Your task to perform on an android device: install app "Google Find My Device" Image 0: 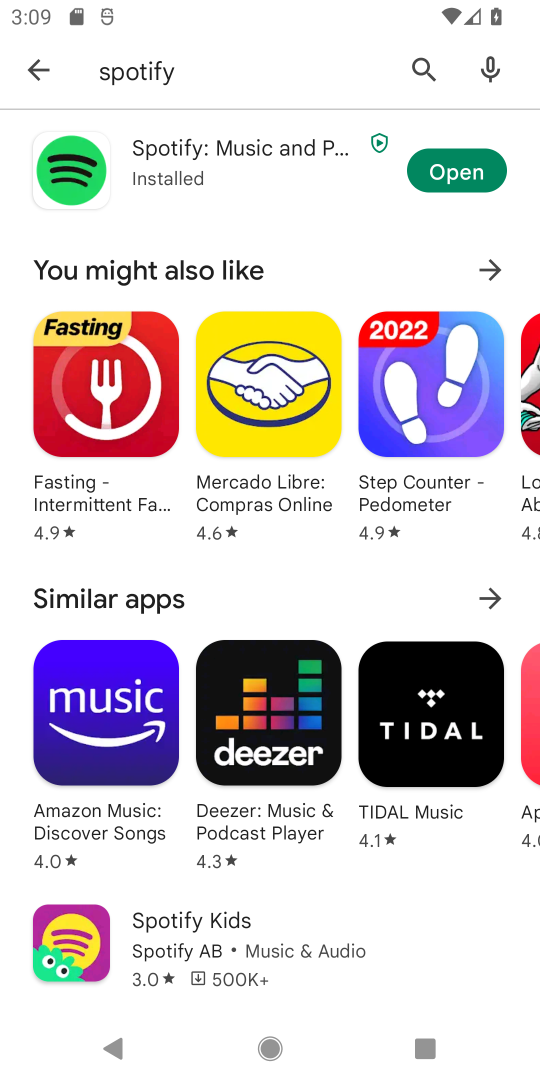
Step 0: click (387, 68)
Your task to perform on an android device: install app "Google Find My Device" Image 1: 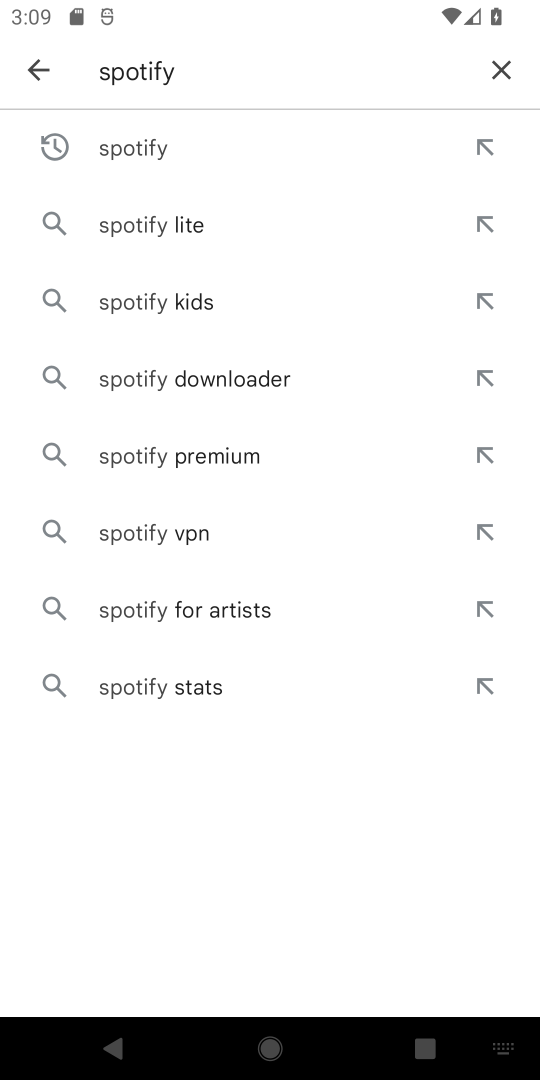
Step 1: click (502, 88)
Your task to perform on an android device: install app "Google Find My Device" Image 2: 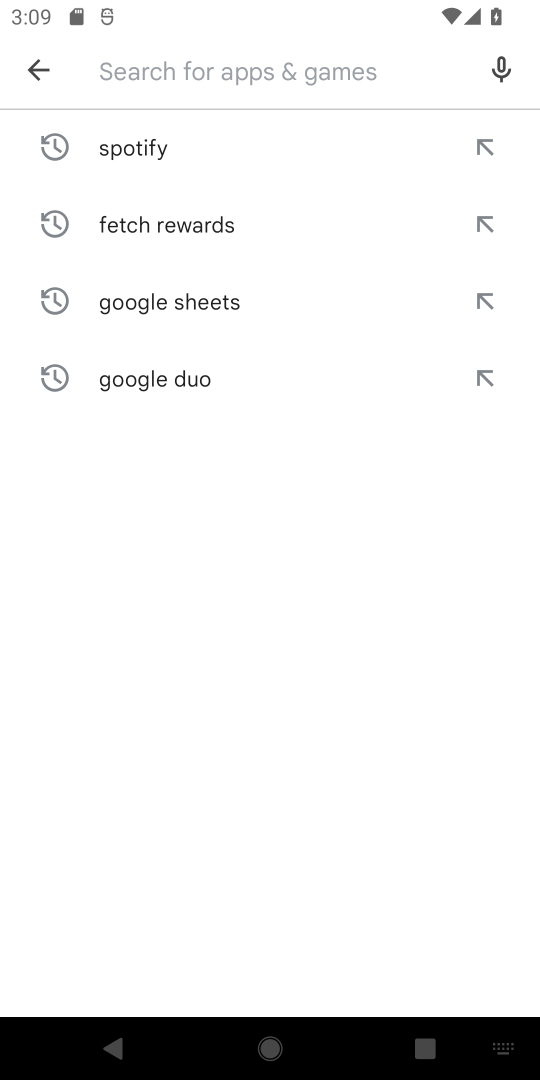
Step 2: type "google find my device"
Your task to perform on an android device: install app "Google Find My Device" Image 3: 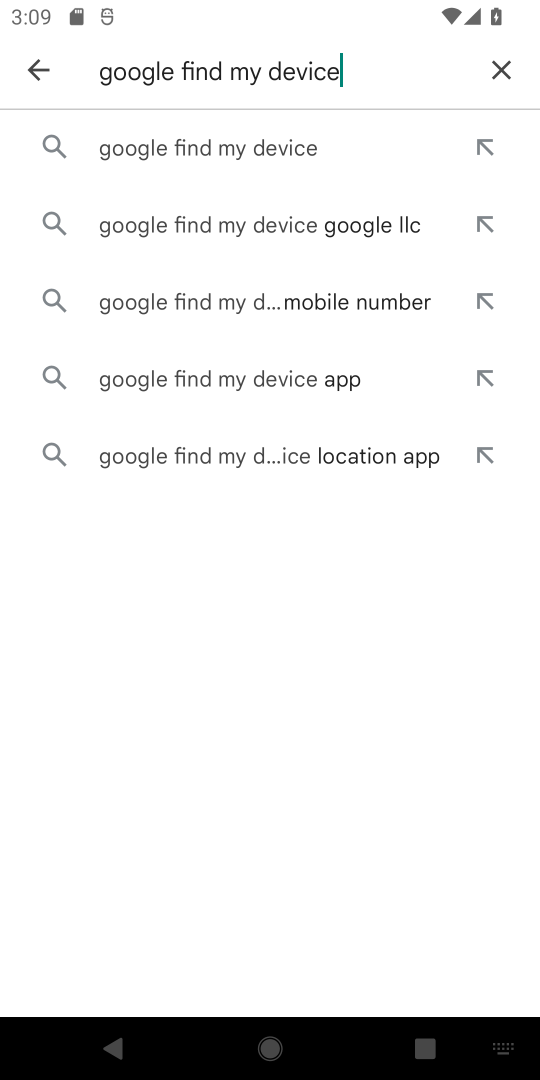
Step 3: click (344, 125)
Your task to perform on an android device: install app "Google Find My Device" Image 4: 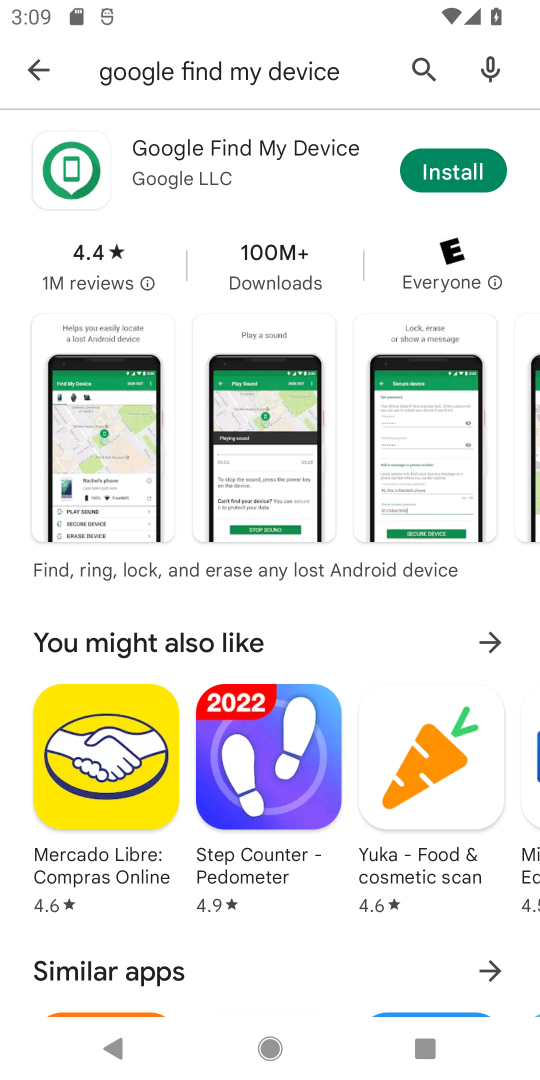
Step 4: click (435, 165)
Your task to perform on an android device: install app "Google Find My Device" Image 5: 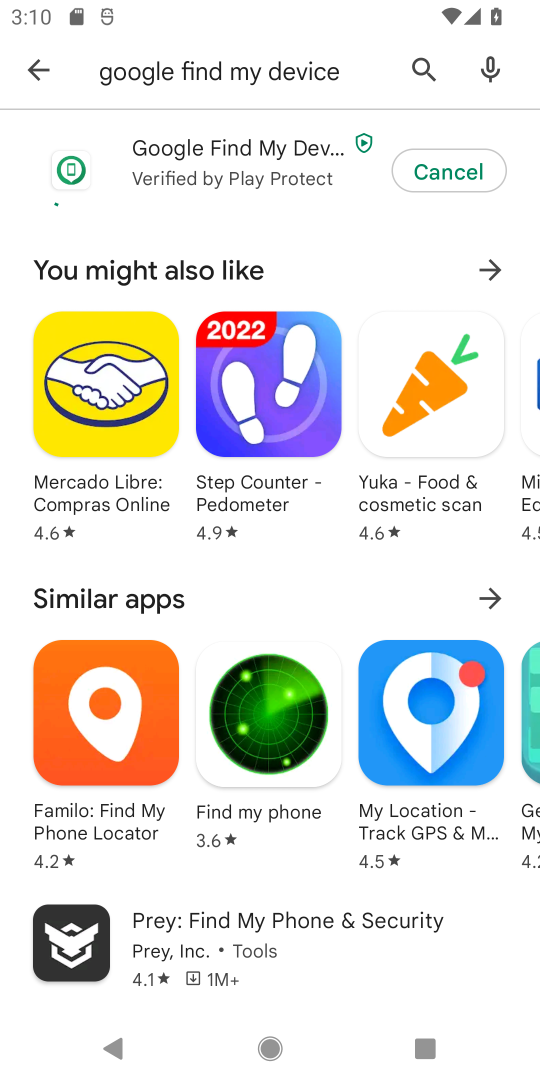
Step 5: task complete